Your task to perform on an android device: turn notification dots off Image 0: 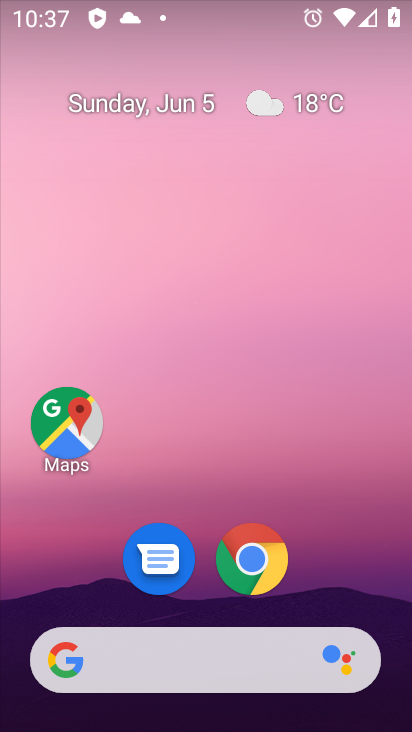
Step 0: drag from (389, 708) to (369, 0)
Your task to perform on an android device: turn notification dots off Image 1: 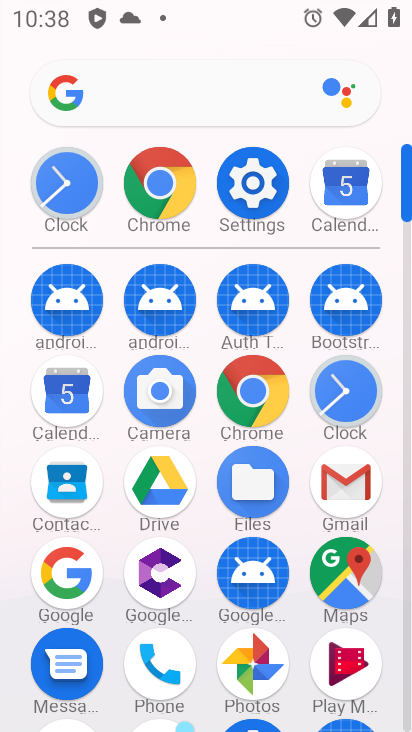
Step 1: click (238, 180)
Your task to perform on an android device: turn notification dots off Image 2: 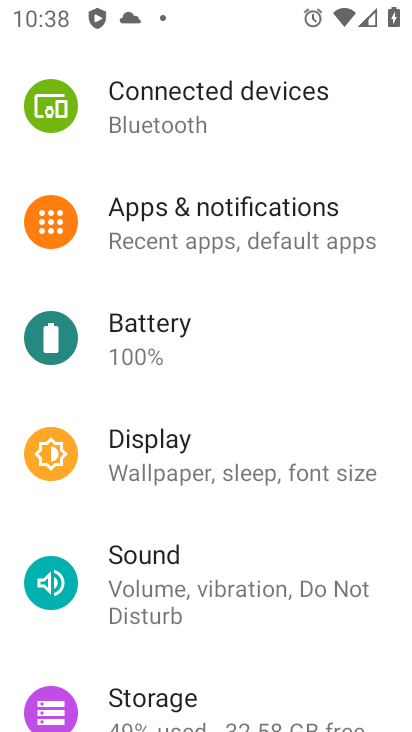
Step 2: click (206, 219)
Your task to perform on an android device: turn notification dots off Image 3: 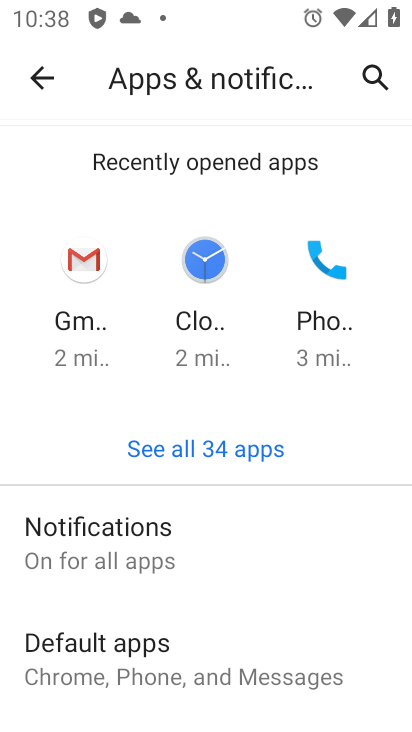
Step 3: click (115, 525)
Your task to perform on an android device: turn notification dots off Image 4: 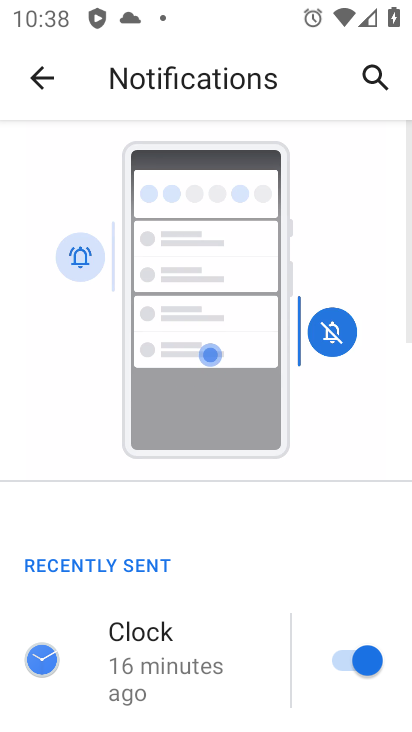
Step 4: drag from (249, 672) to (243, 134)
Your task to perform on an android device: turn notification dots off Image 5: 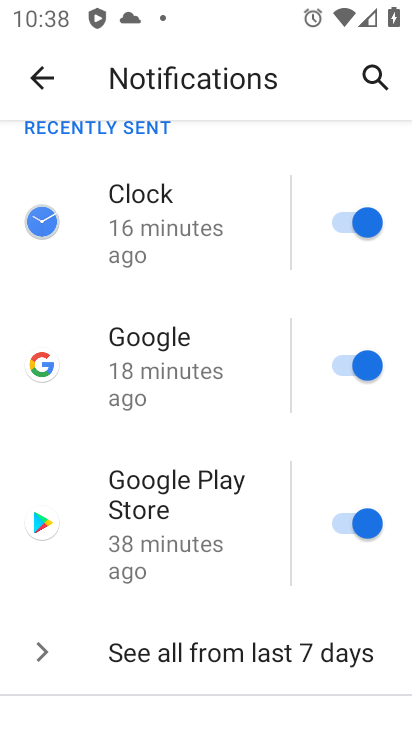
Step 5: drag from (260, 441) to (261, 258)
Your task to perform on an android device: turn notification dots off Image 6: 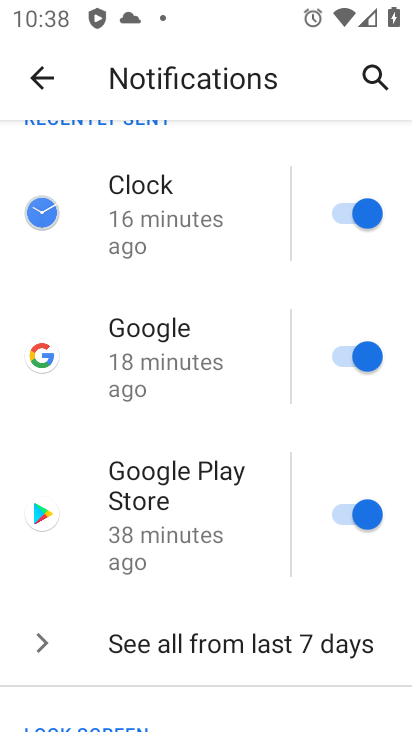
Step 6: drag from (203, 632) to (201, 299)
Your task to perform on an android device: turn notification dots off Image 7: 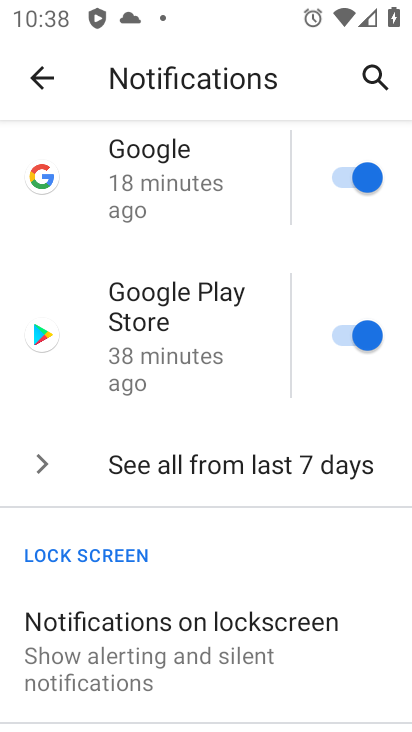
Step 7: drag from (212, 670) to (263, 232)
Your task to perform on an android device: turn notification dots off Image 8: 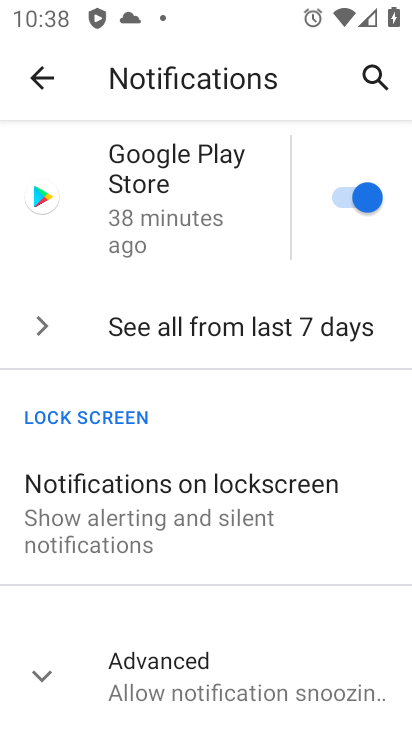
Step 8: click (48, 685)
Your task to perform on an android device: turn notification dots off Image 9: 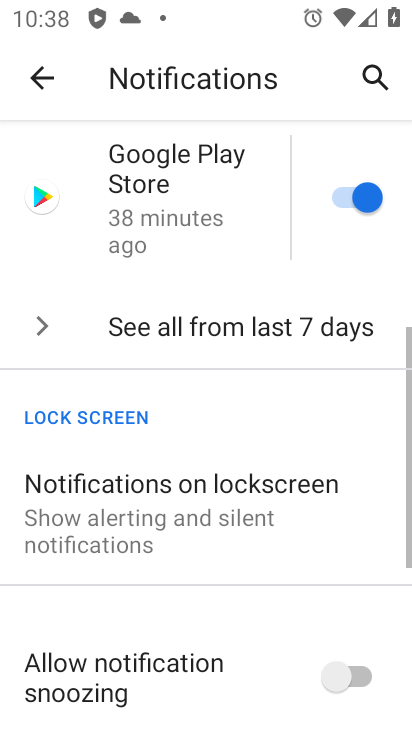
Step 9: drag from (278, 660) to (217, 327)
Your task to perform on an android device: turn notification dots off Image 10: 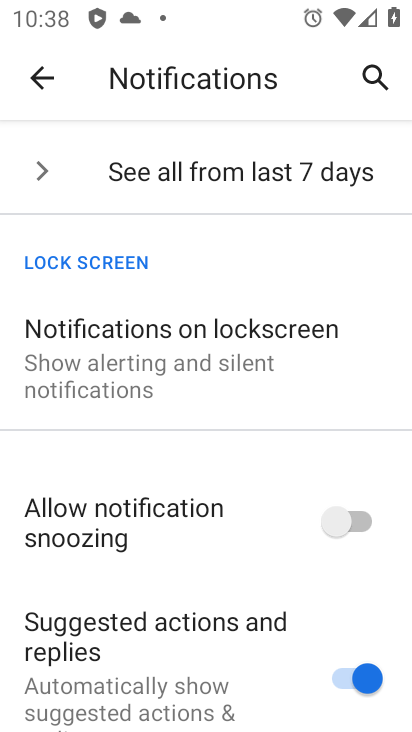
Step 10: drag from (263, 653) to (260, 323)
Your task to perform on an android device: turn notification dots off Image 11: 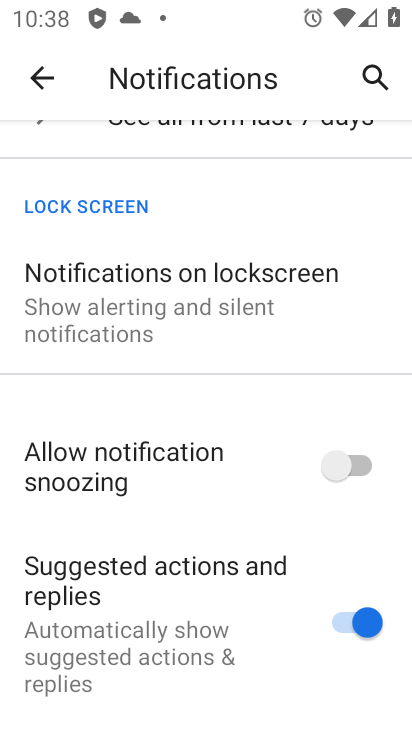
Step 11: drag from (291, 595) to (285, 317)
Your task to perform on an android device: turn notification dots off Image 12: 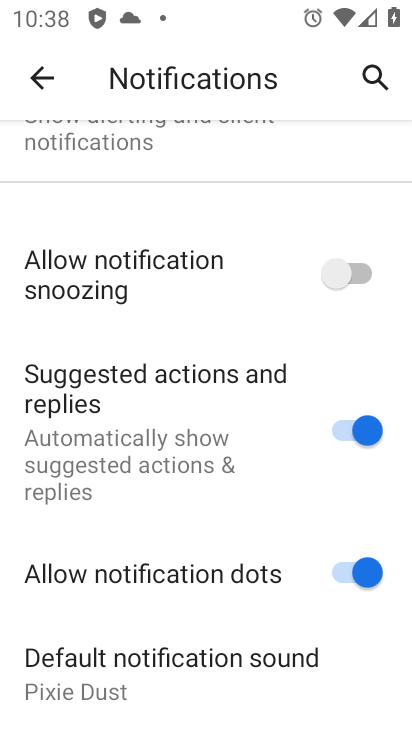
Step 12: drag from (257, 669) to (256, 384)
Your task to perform on an android device: turn notification dots off Image 13: 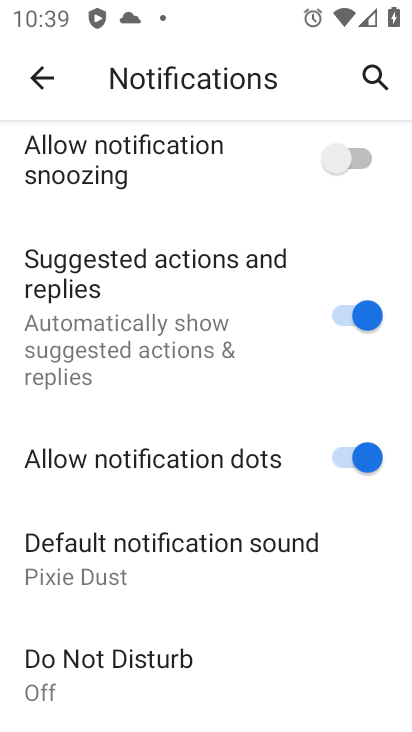
Step 13: click (334, 622)
Your task to perform on an android device: turn notification dots off Image 14: 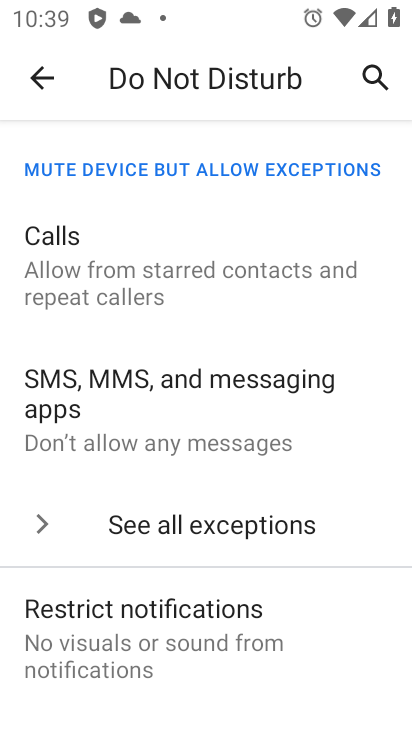
Step 14: task complete